Your task to perform on an android device: toggle show notifications on the lock screen Image 0: 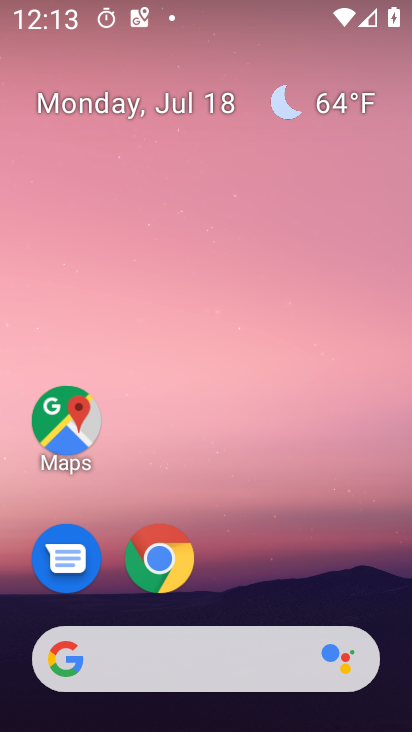
Step 0: drag from (329, 568) to (328, 462)
Your task to perform on an android device: toggle show notifications on the lock screen Image 1: 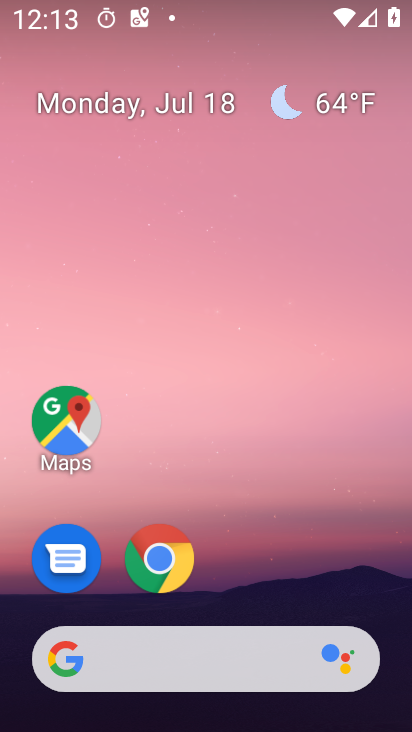
Step 1: drag from (334, 600) to (348, 301)
Your task to perform on an android device: toggle show notifications on the lock screen Image 2: 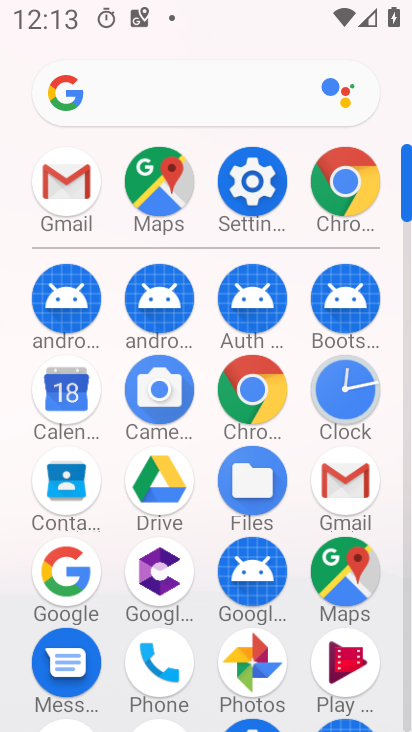
Step 2: click (256, 166)
Your task to perform on an android device: toggle show notifications on the lock screen Image 3: 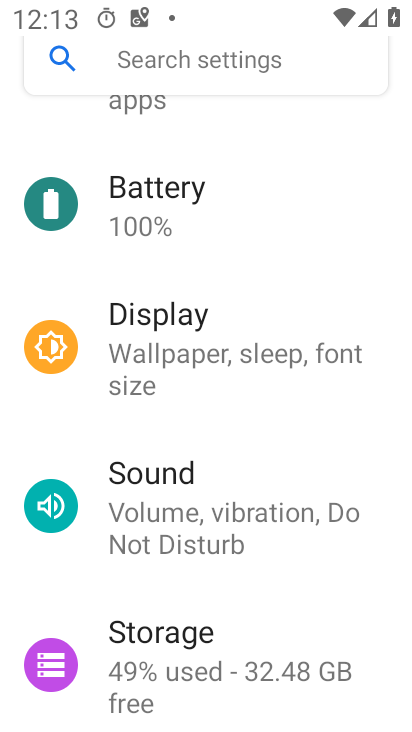
Step 3: drag from (342, 265) to (348, 327)
Your task to perform on an android device: toggle show notifications on the lock screen Image 4: 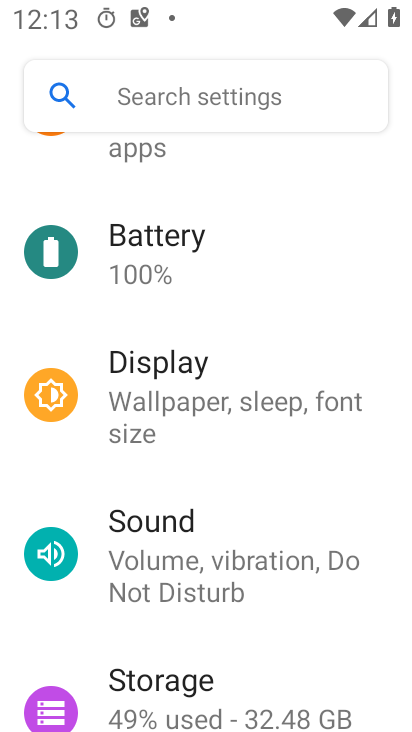
Step 4: drag from (353, 596) to (355, 411)
Your task to perform on an android device: toggle show notifications on the lock screen Image 5: 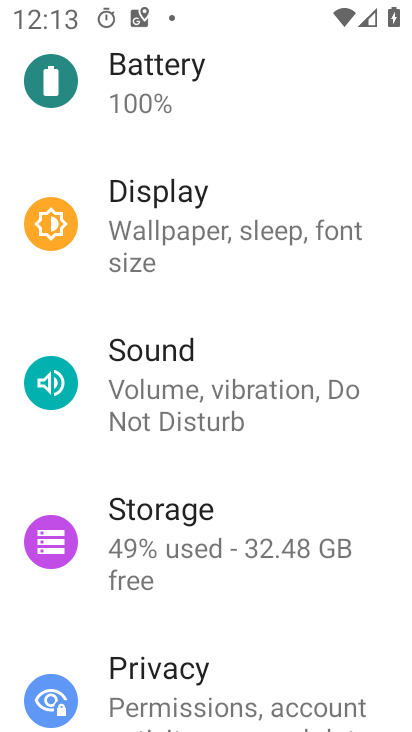
Step 5: drag from (353, 304) to (352, 412)
Your task to perform on an android device: toggle show notifications on the lock screen Image 6: 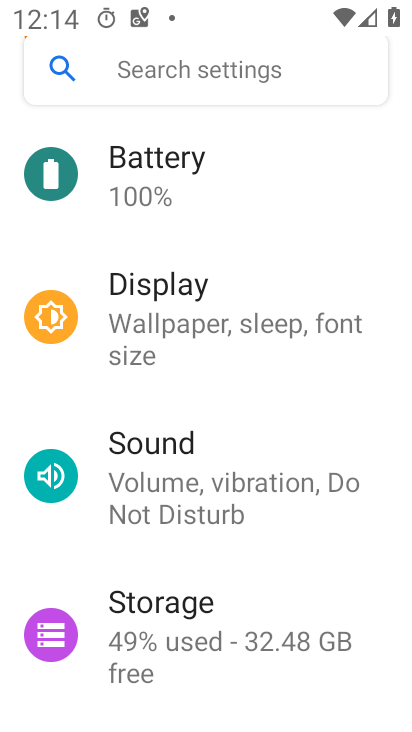
Step 6: drag from (363, 304) to (368, 400)
Your task to perform on an android device: toggle show notifications on the lock screen Image 7: 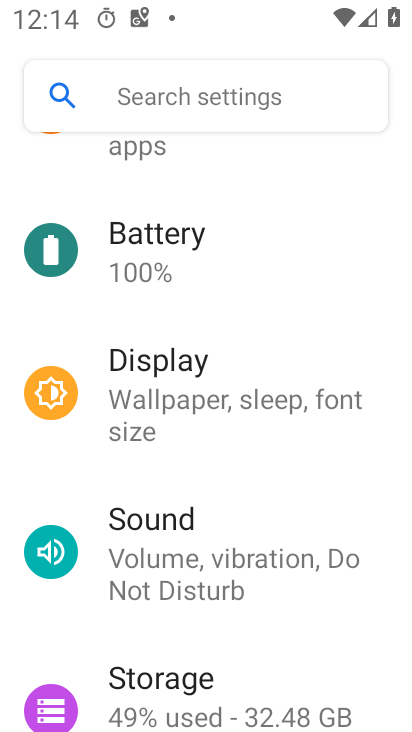
Step 7: drag from (377, 300) to (380, 452)
Your task to perform on an android device: toggle show notifications on the lock screen Image 8: 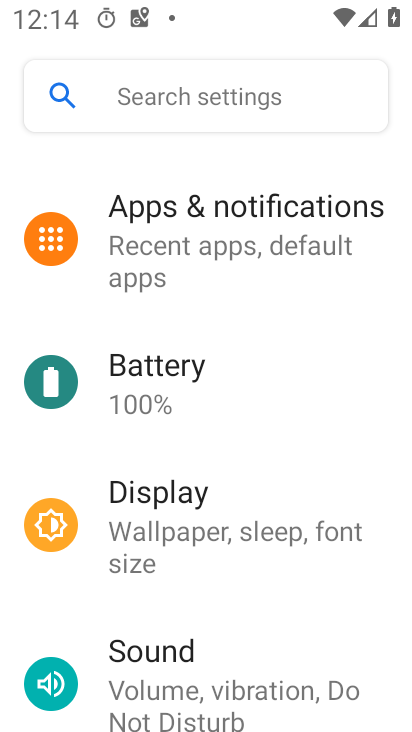
Step 8: drag from (378, 351) to (378, 474)
Your task to perform on an android device: toggle show notifications on the lock screen Image 9: 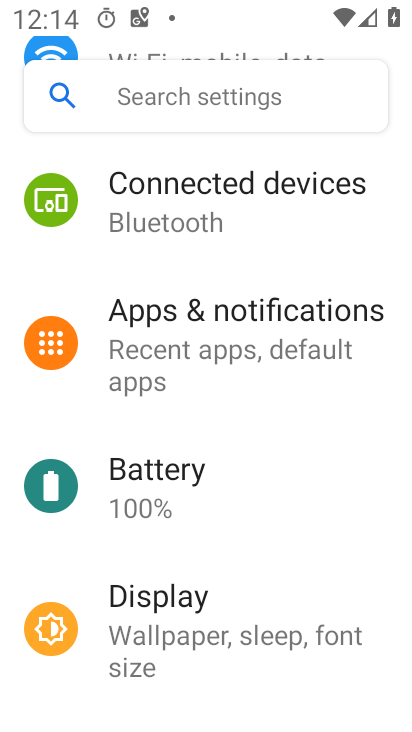
Step 9: drag from (374, 340) to (375, 456)
Your task to perform on an android device: toggle show notifications on the lock screen Image 10: 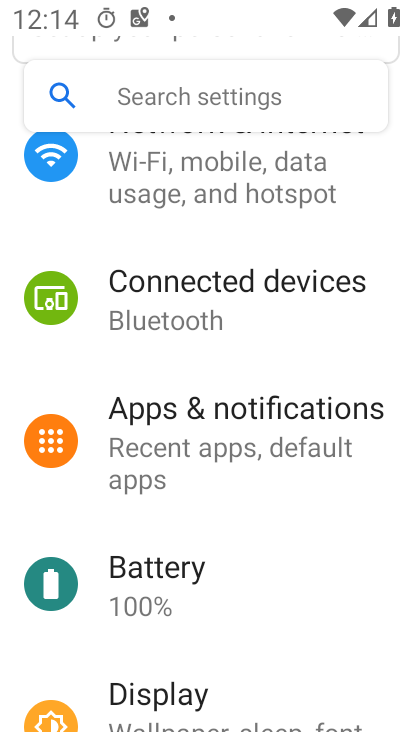
Step 10: click (349, 428)
Your task to perform on an android device: toggle show notifications on the lock screen Image 11: 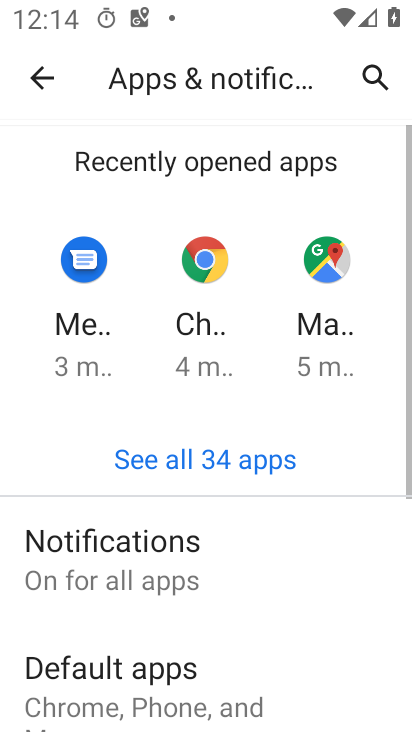
Step 11: drag from (336, 514) to (334, 441)
Your task to perform on an android device: toggle show notifications on the lock screen Image 12: 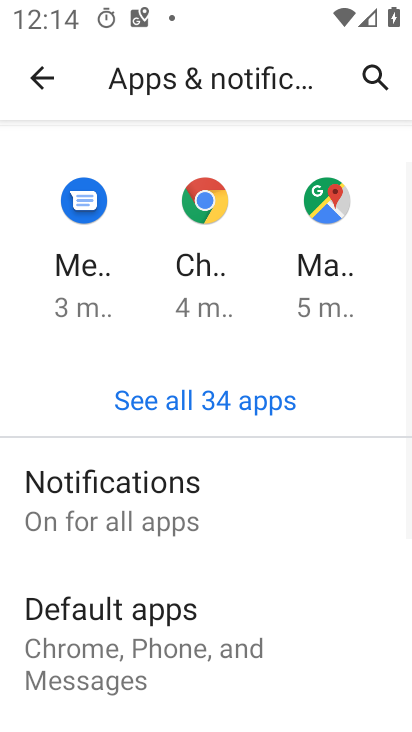
Step 12: drag from (346, 510) to (349, 421)
Your task to perform on an android device: toggle show notifications on the lock screen Image 13: 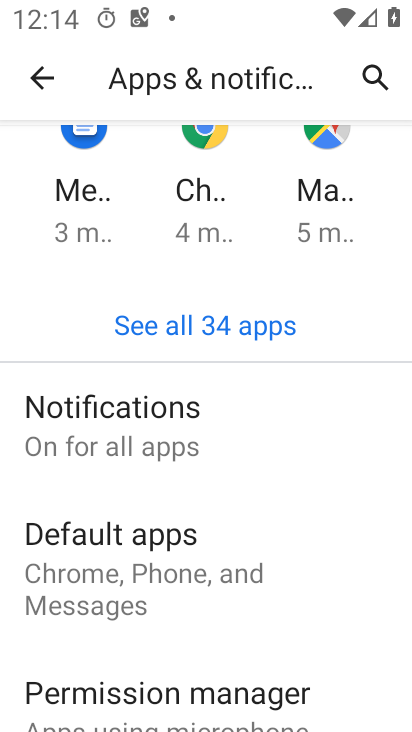
Step 13: click (178, 422)
Your task to perform on an android device: toggle show notifications on the lock screen Image 14: 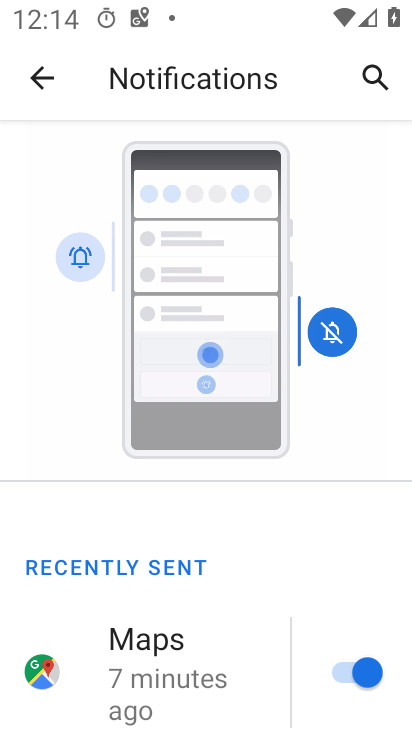
Step 14: drag from (242, 592) to (255, 503)
Your task to perform on an android device: toggle show notifications on the lock screen Image 15: 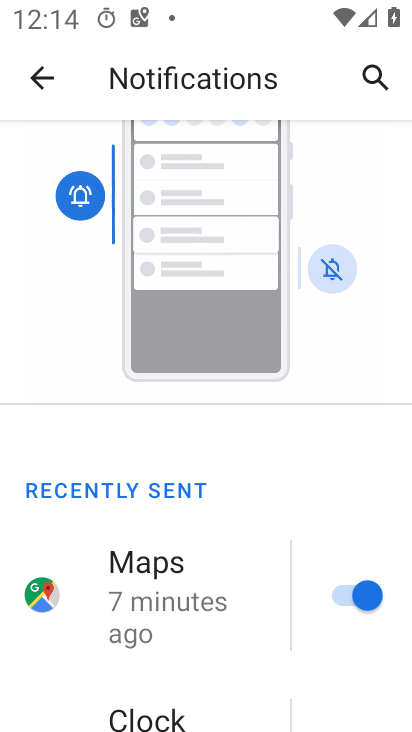
Step 15: drag from (255, 581) to (263, 496)
Your task to perform on an android device: toggle show notifications on the lock screen Image 16: 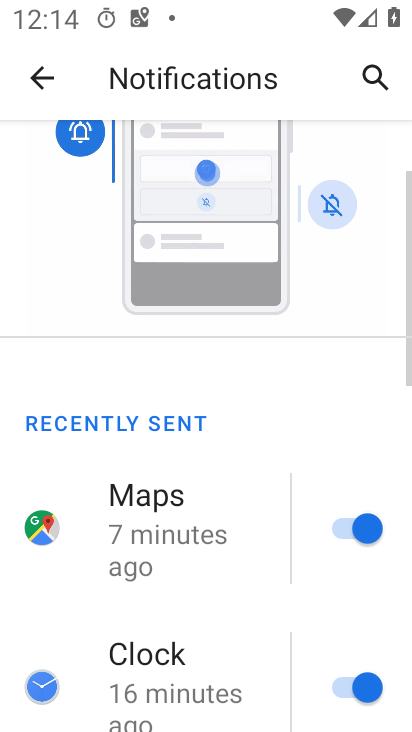
Step 16: drag from (244, 590) to (258, 436)
Your task to perform on an android device: toggle show notifications on the lock screen Image 17: 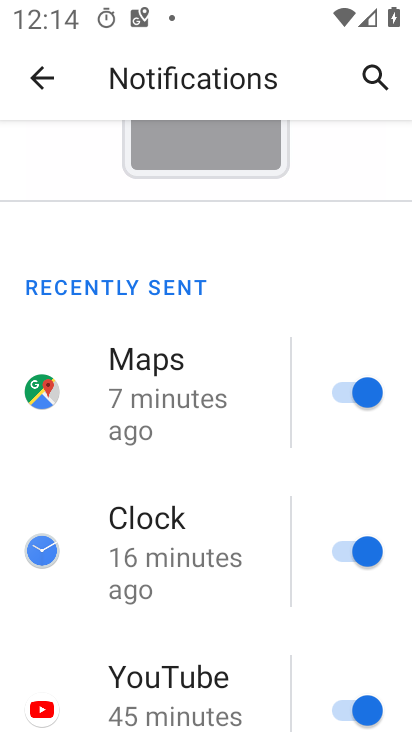
Step 17: drag from (247, 583) to (254, 478)
Your task to perform on an android device: toggle show notifications on the lock screen Image 18: 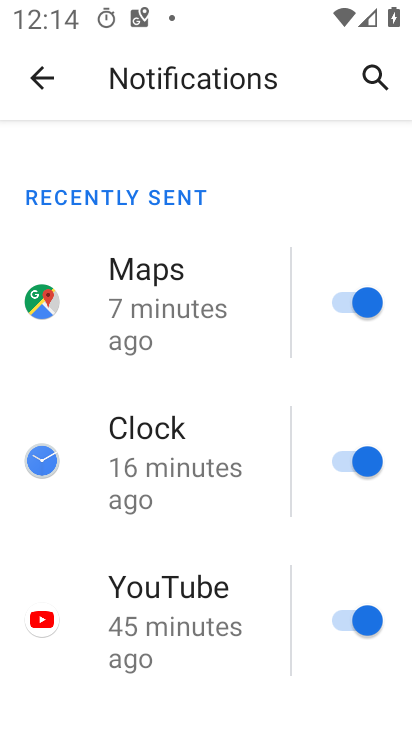
Step 18: drag from (256, 593) to (254, 489)
Your task to perform on an android device: toggle show notifications on the lock screen Image 19: 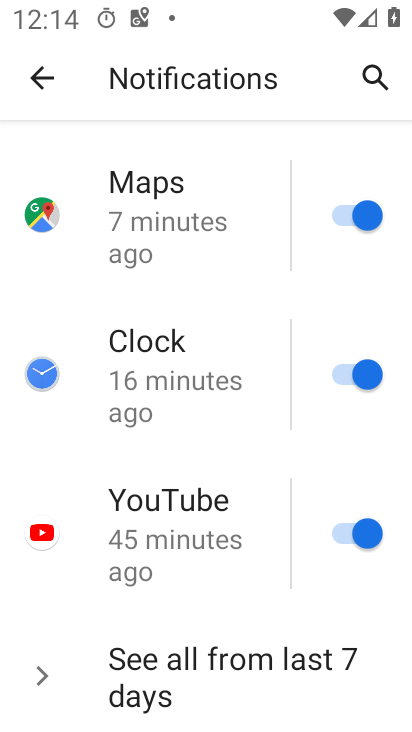
Step 19: drag from (253, 594) to (260, 438)
Your task to perform on an android device: toggle show notifications on the lock screen Image 20: 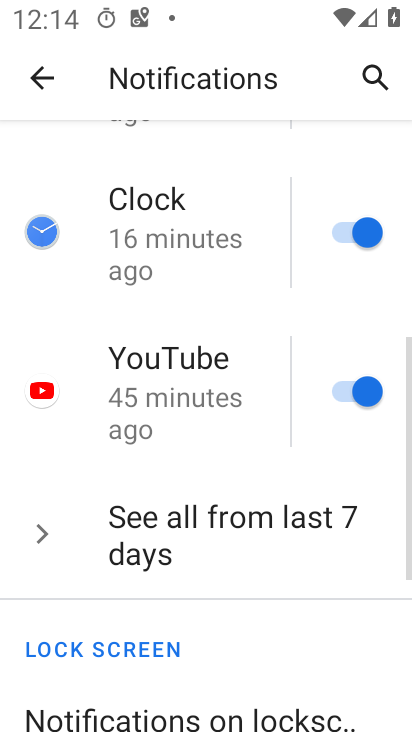
Step 20: drag from (252, 603) to (260, 488)
Your task to perform on an android device: toggle show notifications on the lock screen Image 21: 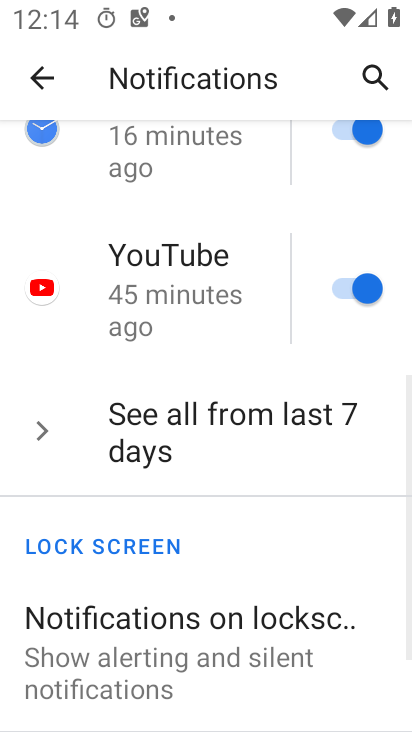
Step 21: click (260, 648)
Your task to perform on an android device: toggle show notifications on the lock screen Image 22: 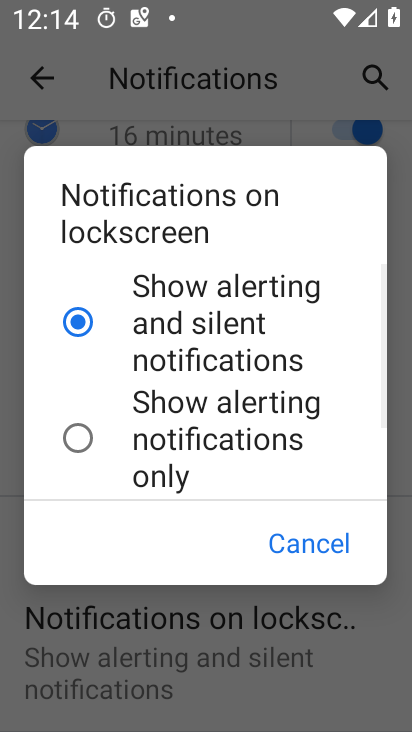
Step 22: click (206, 457)
Your task to perform on an android device: toggle show notifications on the lock screen Image 23: 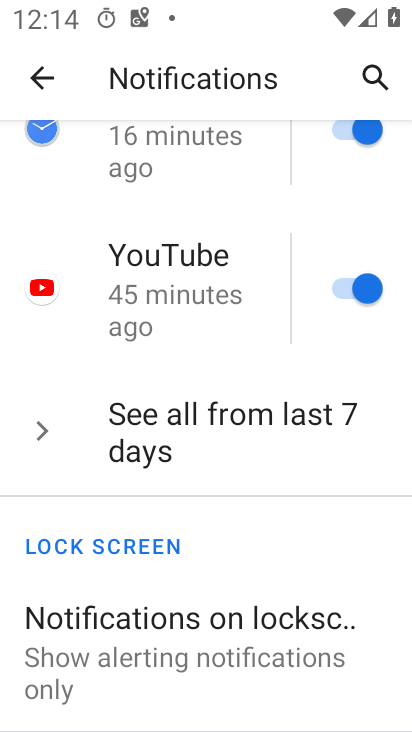
Step 23: task complete